Your task to perform on an android device: What is the recent news? Image 0: 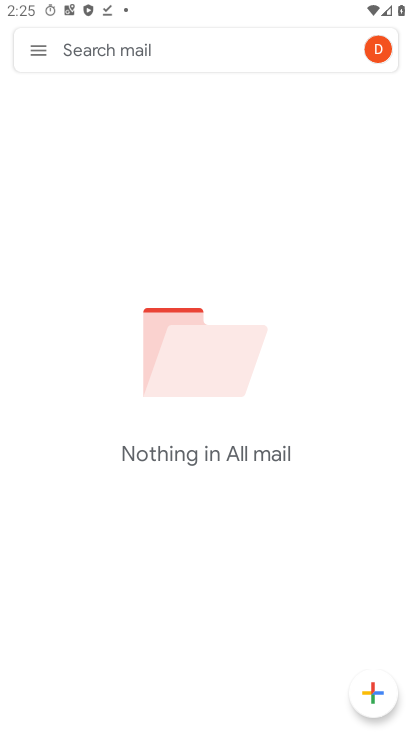
Step 0: press home button
Your task to perform on an android device: What is the recent news? Image 1: 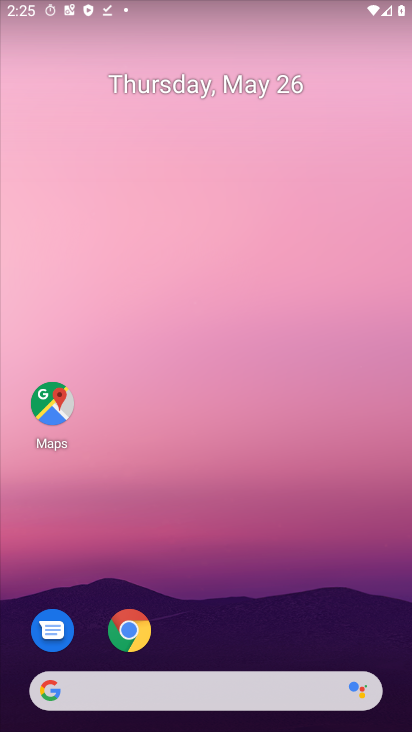
Step 1: click (213, 684)
Your task to perform on an android device: What is the recent news? Image 2: 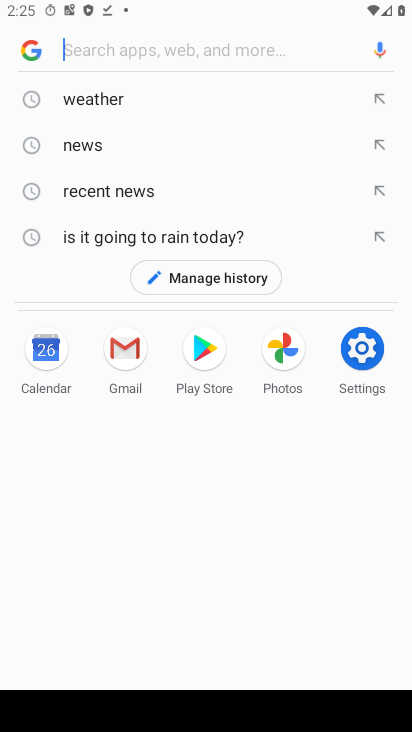
Step 2: click (190, 191)
Your task to perform on an android device: What is the recent news? Image 3: 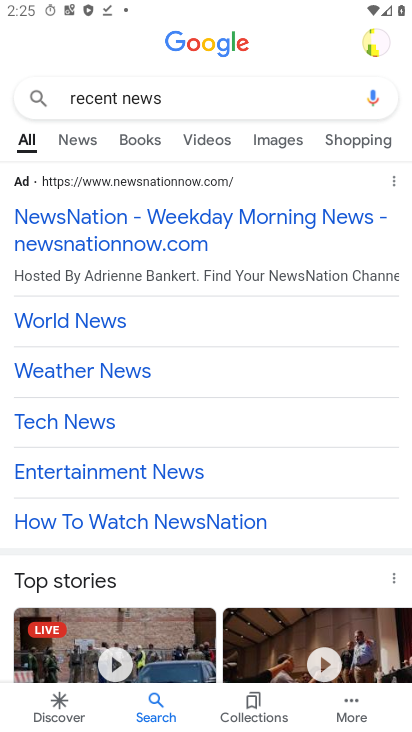
Step 3: task complete